Your task to perform on an android device: Search for razer naga on ebay, select the first entry, and add it to the cart. Image 0: 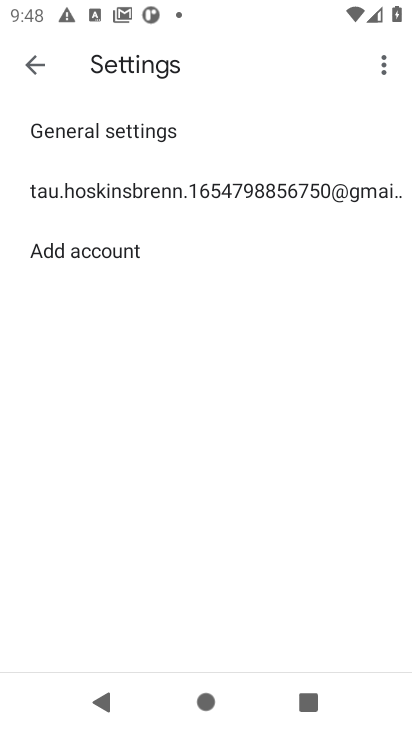
Step 0: press home button
Your task to perform on an android device: Search for razer naga on ebay, select the first entry, and add it to the cart. Image 1: 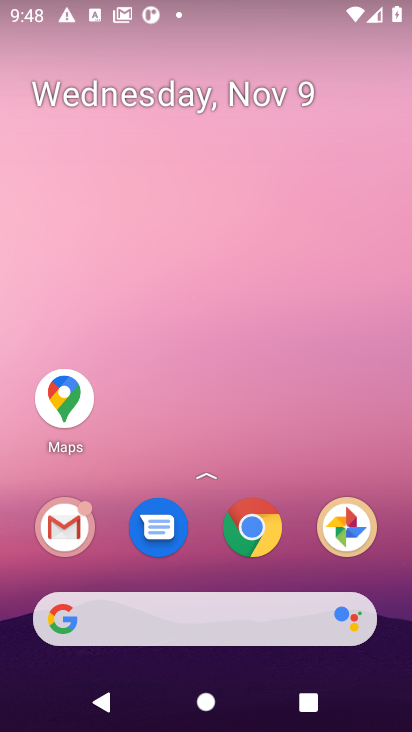
Step 1: click (260, 527)
Your task to perform on an android device: Search for razer naga on ebay, select the first entry, and add it to the cart. Image 2: 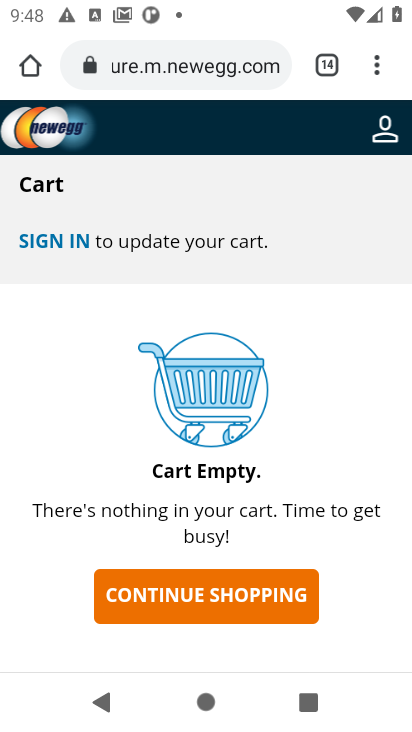
Step 2: click (137, 76)
Your task to perform on an android device: Search for razer naga on ebay, select the first entry, and add it to the cart. Image 3: 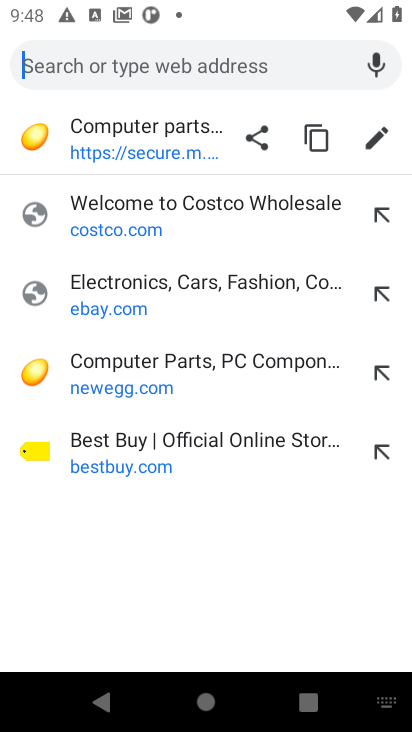
Step 3: click (128, 306)
Your task to perform on an android device: Search for razer naga on ebay, select the first entry, and add it to the cart. Image 4: 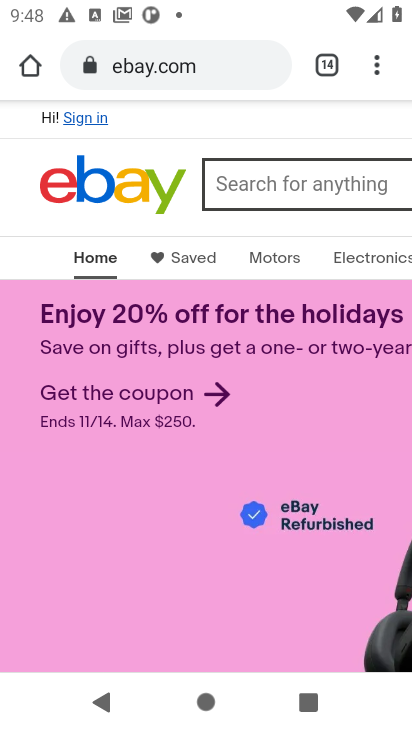
Step 4: click (298, 183)
Your task to perform on an android device: Search for razer naga on ebay, select the first entry, and add it to the cart. Image 5: 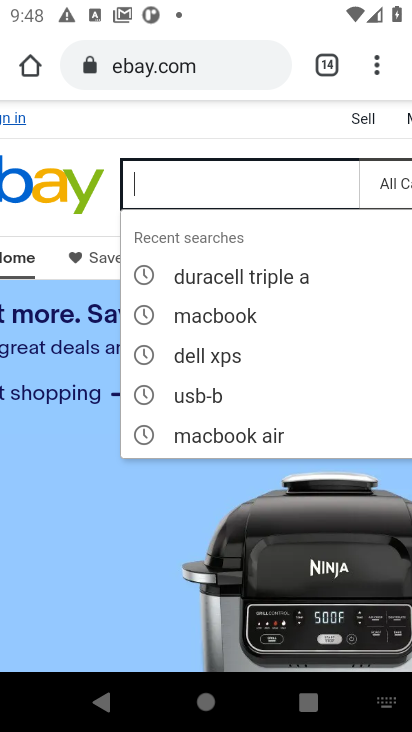
Step 5: type " razer naga"
Your task to perform on an android device: Search for razer naga on ebay, select the first entry, and add it to the cart. Image 6: 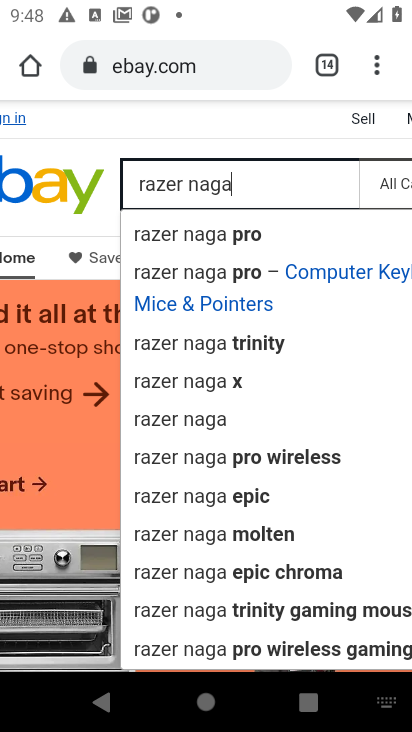
Step 6: click (201, 425)
Your task to perform on an android device: Search for razer naga on ebay, select the first entry, and add it to the cart. Image 7: 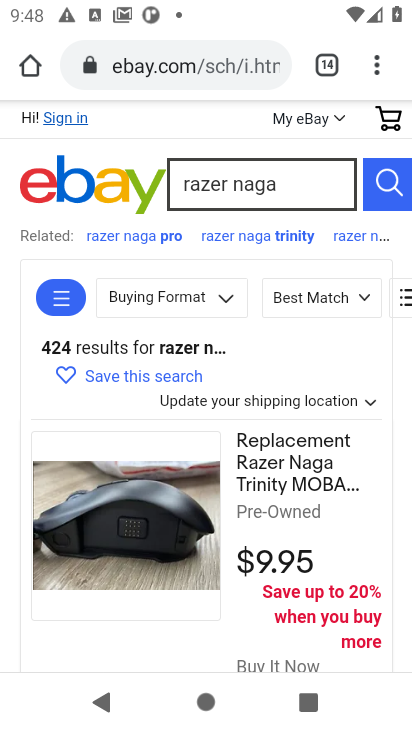
Step 7: drag from (117, 513) to (117, 379)
Your task to perform on an android device: Search for razer naga on ebay, select the first entry, and add it to the cart. Image 8: 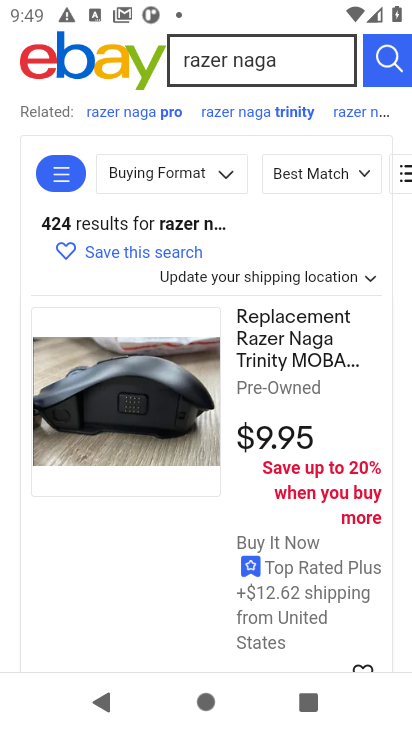
Step 8: click (118, 408)
Your task to perform on an android device: Search for razer naga on ebay, select the first entry, and add it to the cart. Image 9: 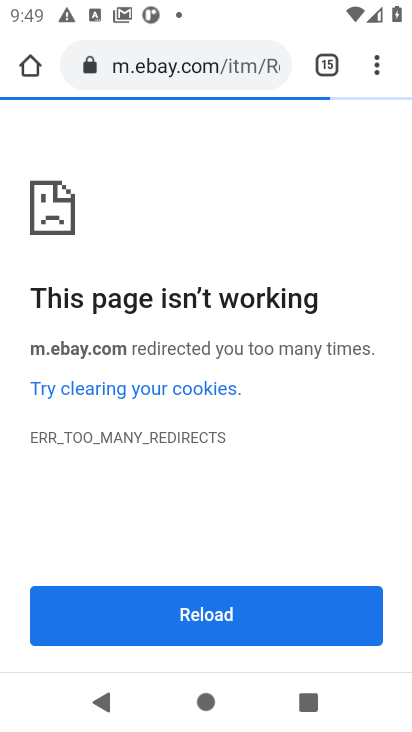
Step 9: task complete